Your task to perform on an android device: turn off location history Image 0: 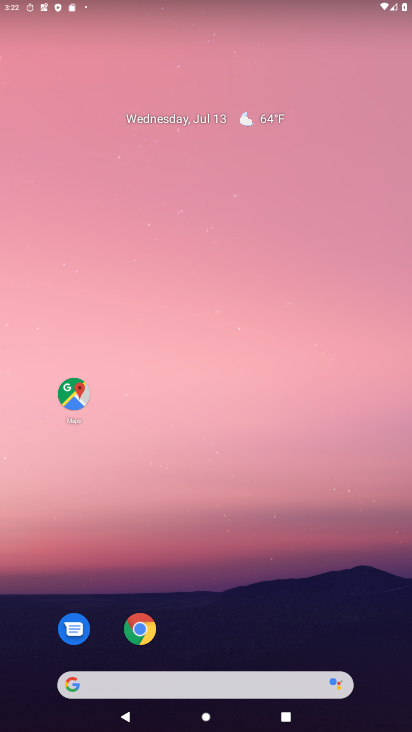
Step 0: drag from (311, 280) to (286, 0)
Your task to perform on an android device: turn off location history Image 1: 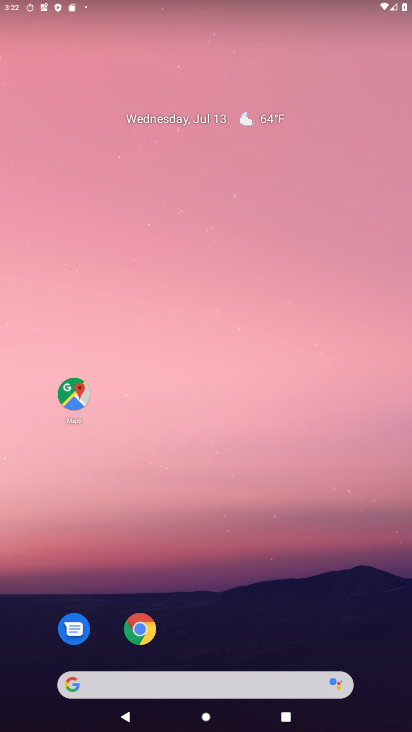
Step 1: drag from (222, 680) to (239, 22)
Your task to perform on an android device: turn off location history Image 2: 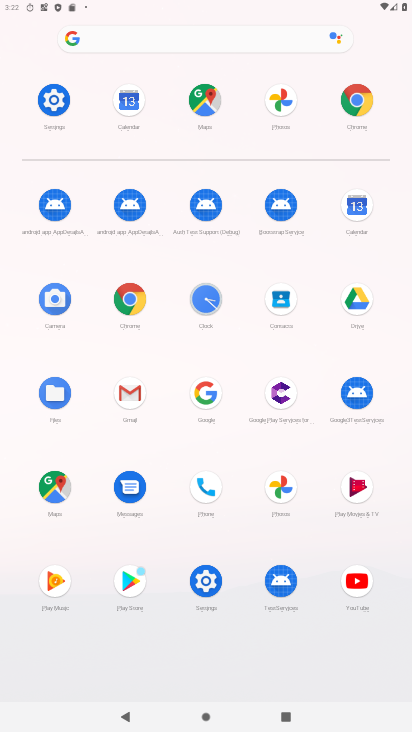
Step 2: click (42, 96)
Your task to perform on an android device: turn off location history Image 3: 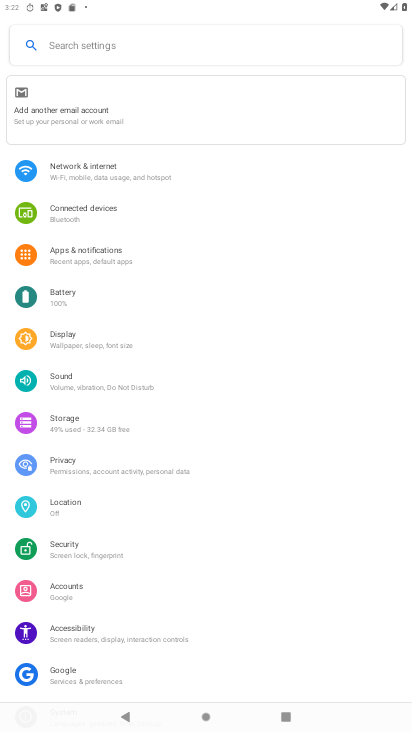
Step 3: click (96, 511)
Your task to perform on an android device: turn off location history Image 4: 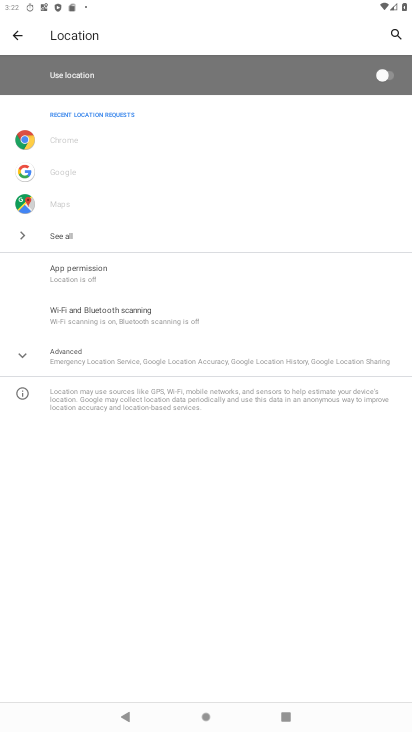
Step 4: click (231, 366)
Your task to perform on an android device: turn off location history Image 5: 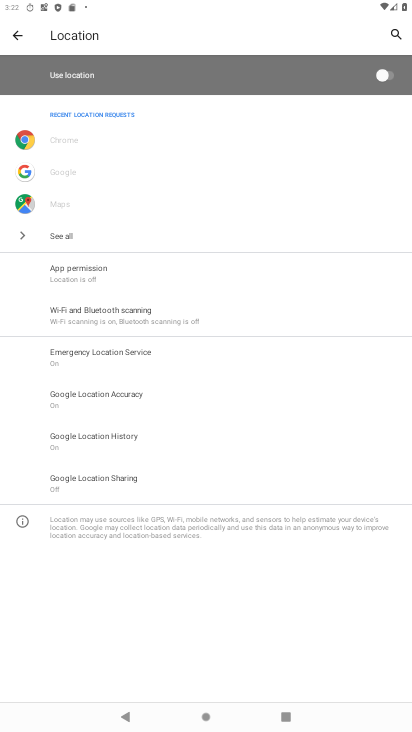
Step 5: click (134, 434)
Your task to perform on an android device: turn off location history Image 6: 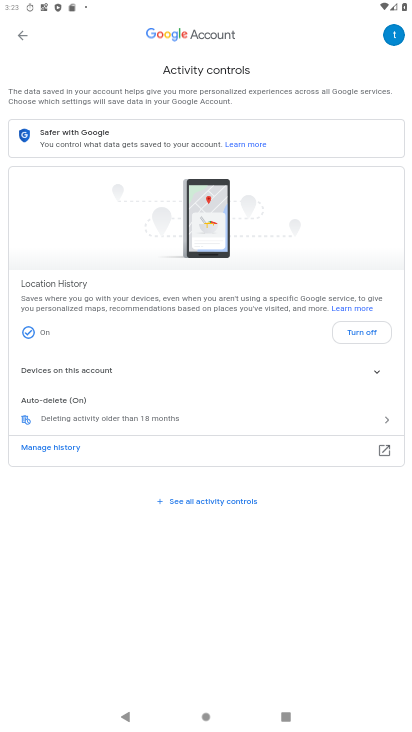
Step 6: click (376, 330)
Your task to perform on an android device: turn off location history Image 7: 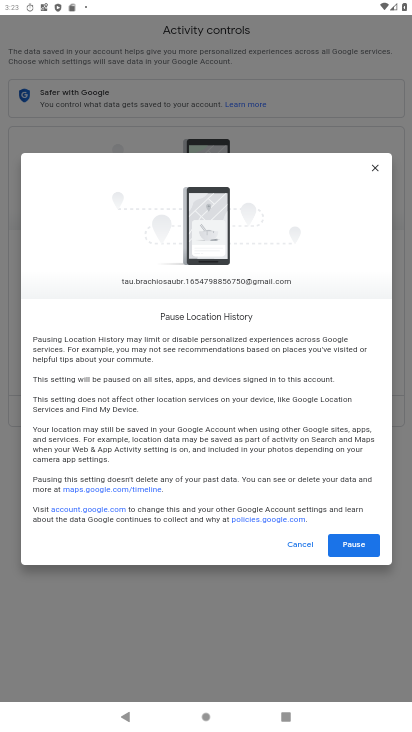
Step 7: click (367, 537)
Your task to perform on an android device: turn off location history Image 8: 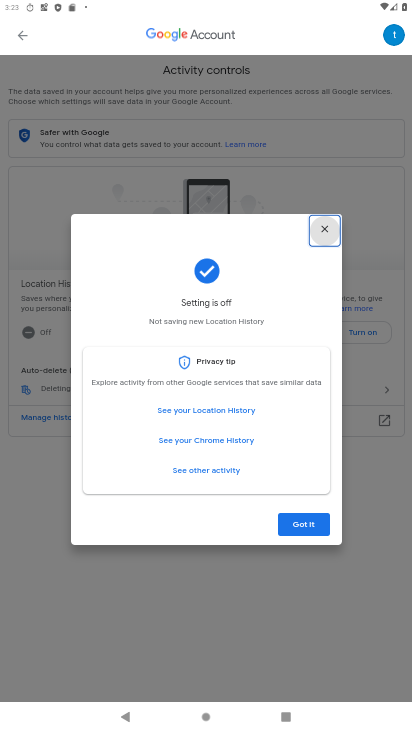
Step 8: task complete